Your task to perform on an android device: Open Chrome and go to settings Image 0: 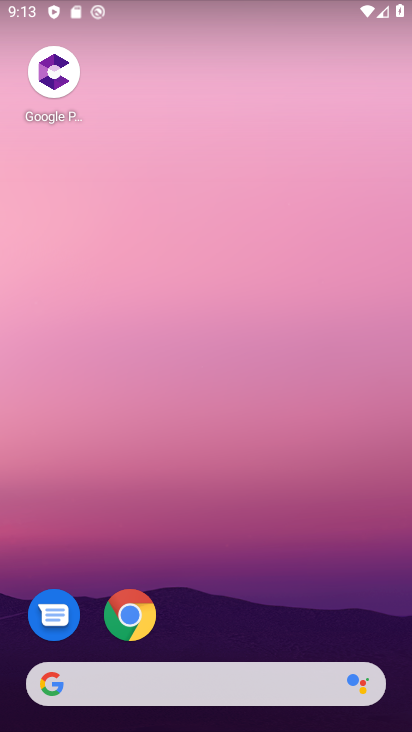
Step 0: click (126, 618)
Your task to perform on an android device: Open Chrome and go to settings Image 1: 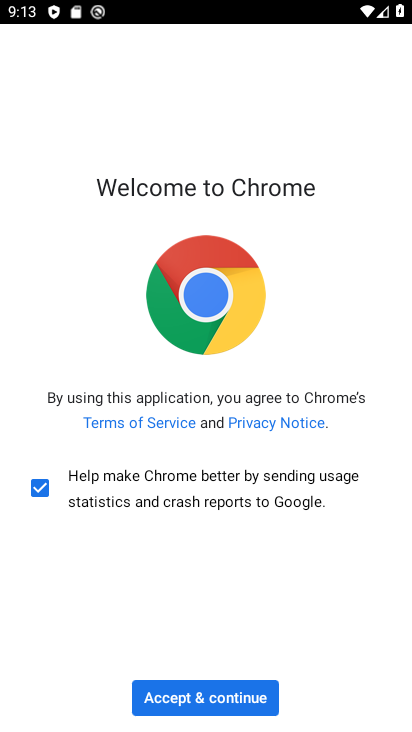
Step 1: click (213, 701)
Your task to perform on an android device: Open Chrome and go to settings Image 2: 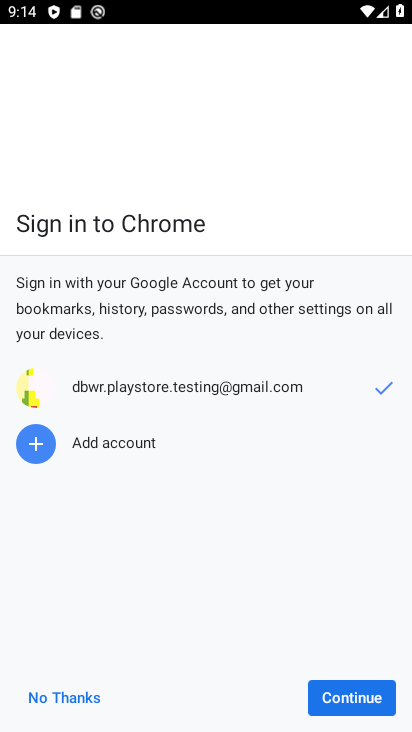
Step 2: click (327, 705)
Your task to perform on an android device: Open Chrome and go to settings Image 3: 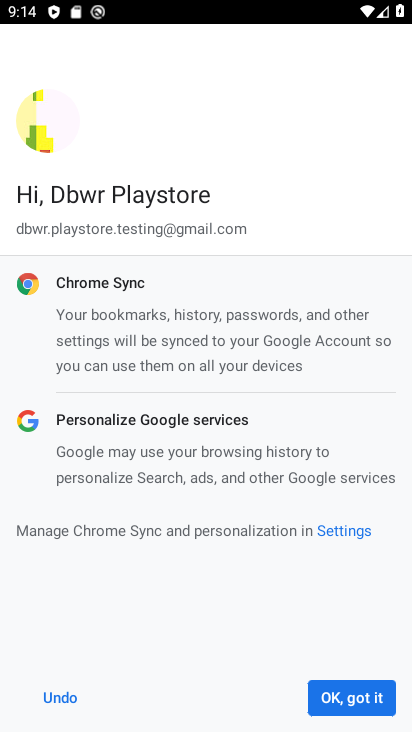
Step 3: click (340, 697)
Your task to perform on an android device: Open Chrome and go to settings Image 4: 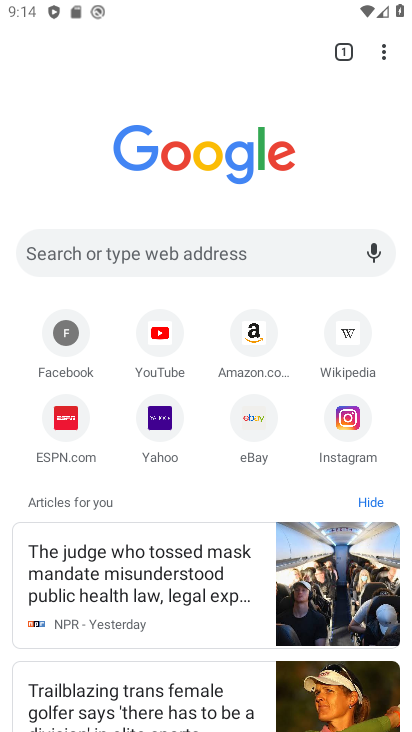
Step 4: click (384, 51)
Your task to perform on an android device: Open Chrome and go to settings Image 5: 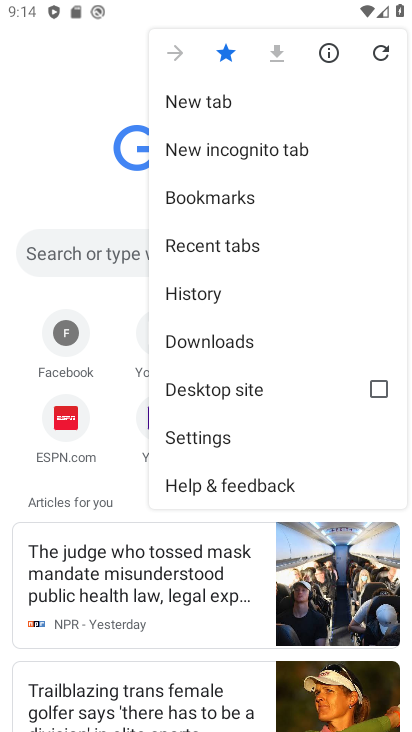
Step 5: click (205, 438)
Your task to perform on an android device: Open Chrome and go to settings Image 6: 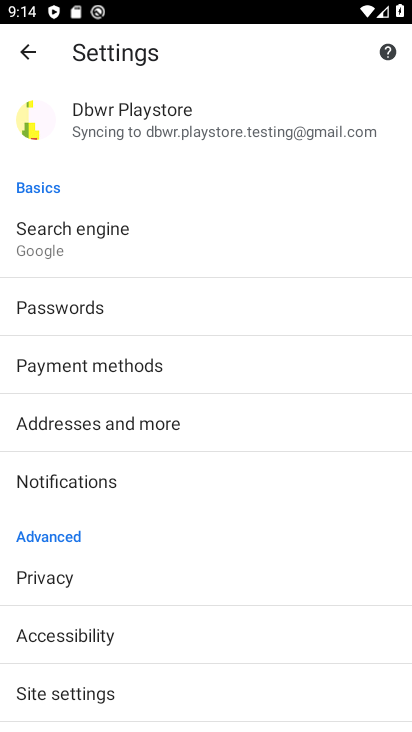
Step 6: task complete